Your task to perform on an android device: Search for "logitech g pro" on costco, select the first entry, add it to the cart, then select checkout. Image 0: 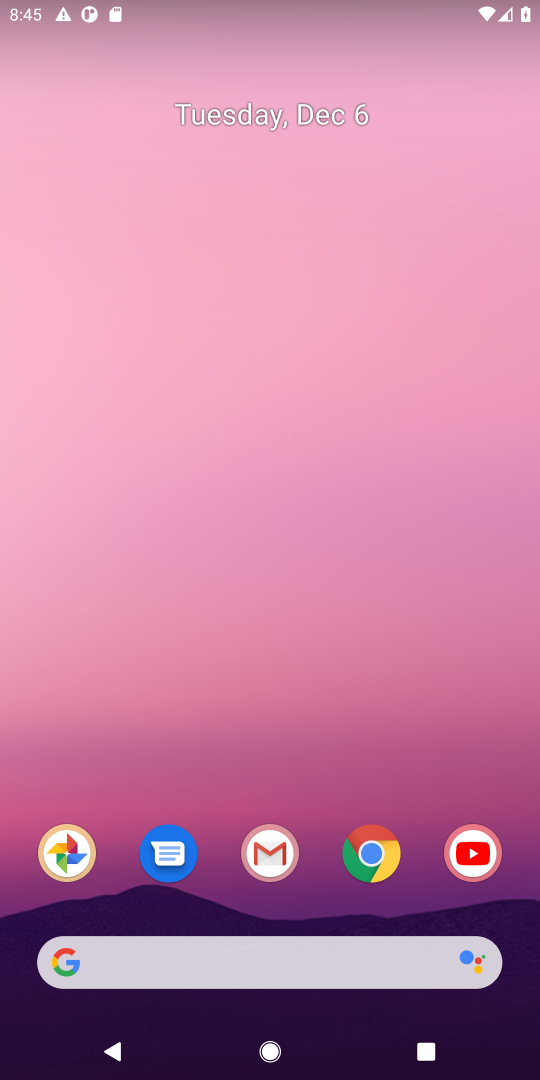
Step 0: drag from (323, 931) to (363, 268)
Your task to perform on an android device: Search for "logitech g pro" on costco, select the first entry, add it to the cart, then select checkout. Image 1: 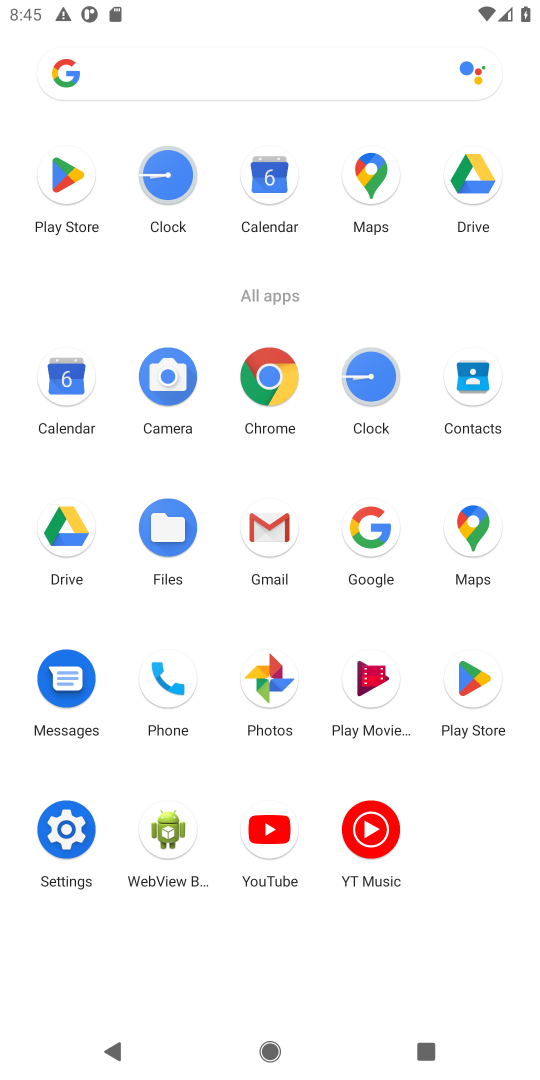
Step 1: click (360, 536)
Your task to perform on an android device: Search for "logitech g pro" on costco, select the first entry, add it to the cart, then select checkout. Image 2: 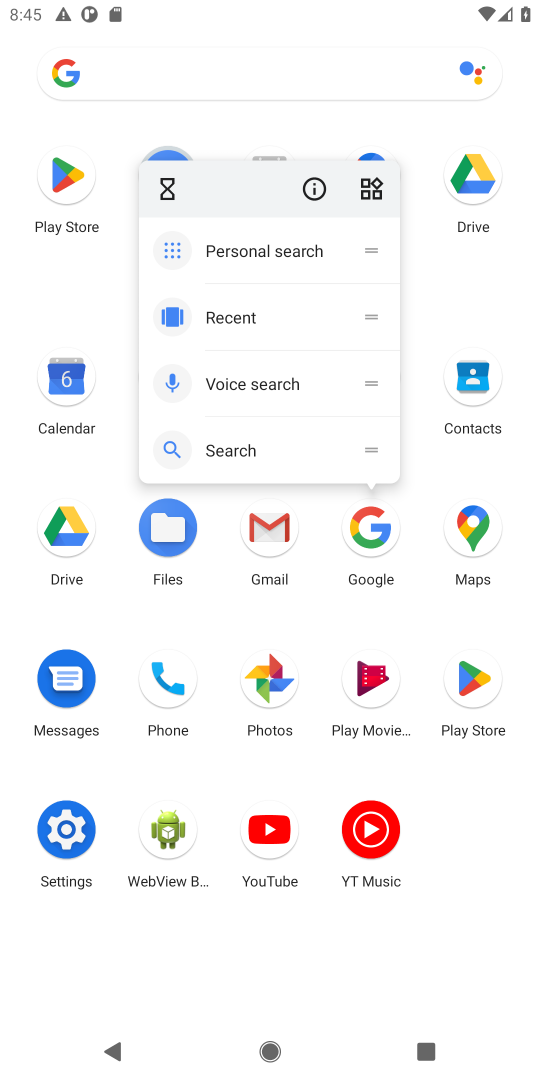
Step 2: click (383, 518)
Your task to perform on an android device: Search for "logitech g pro" on costco, select the first entry, add it to the cart, then select checkout. Image 3: 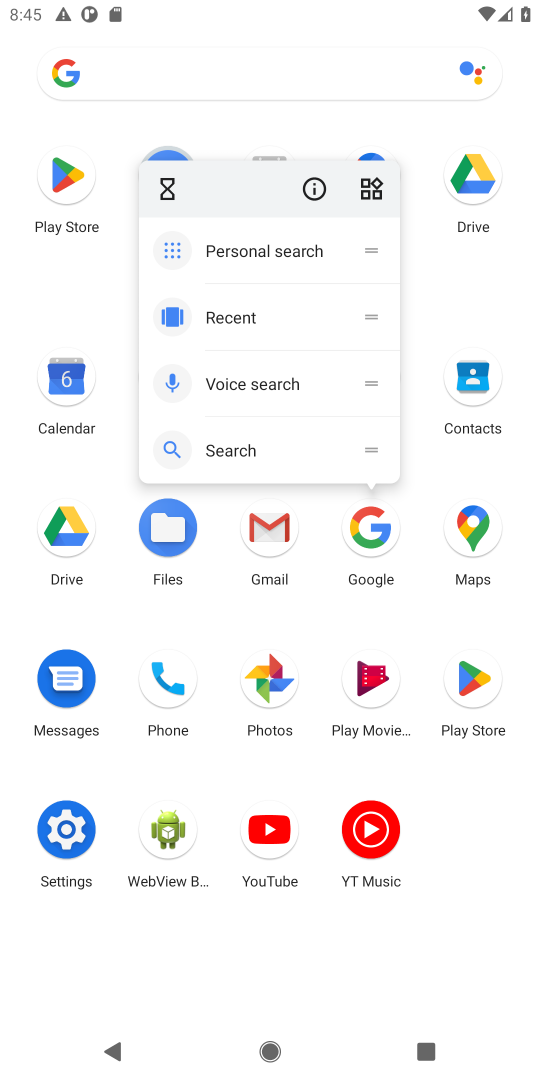
Step 3: click (373, 537)
Your task to perform on an android device: Search for "logitech g pro" on costco, select the first entry, add it to the cart, then select checkout. Image 4: 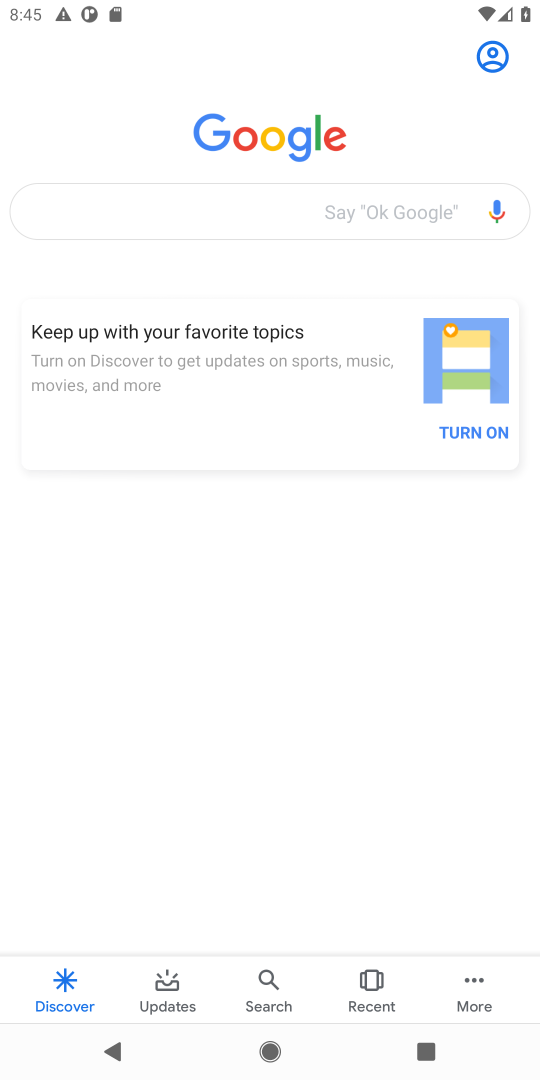
Step 4: click (181, 228)
Your task to perform on an android device: Search for "logitech g pro" on costco, select the first entry, add it to the cart, then select checkout. Image 5: 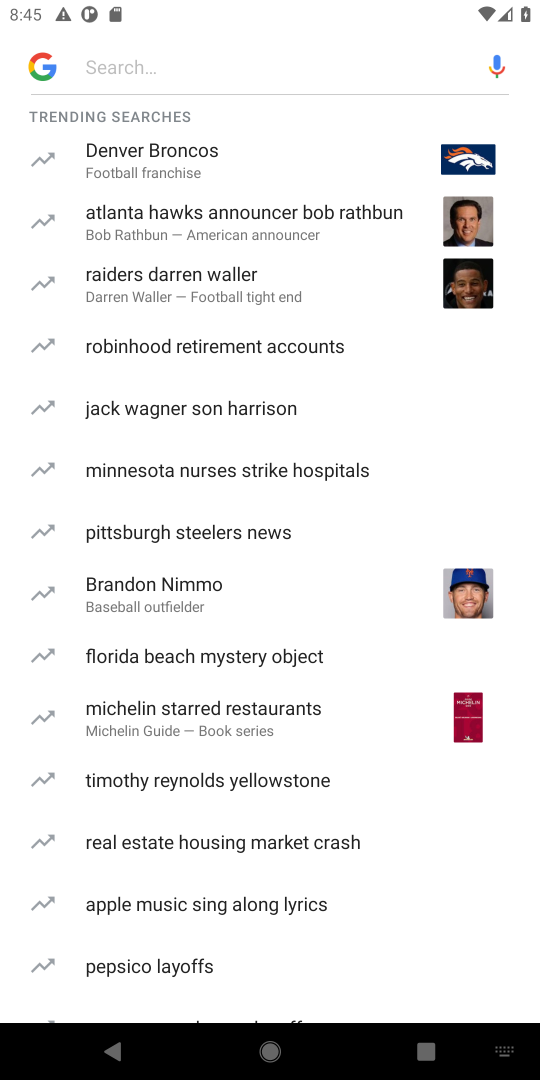
Step 5: type "costco"
Your task to perform on an android device: Search for "logitech g pro" on costco, select the first entry, add it to the cart, then select checkout. Image 6: 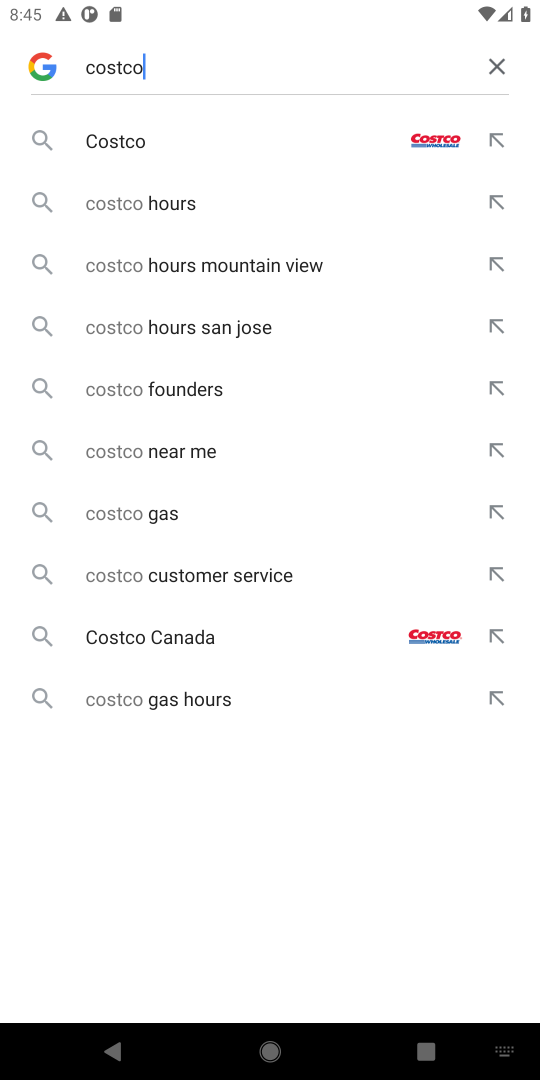
Step 6: click (431, 144)
Your task to perform on an android device: Search for "logitech g pro" on costco, select the first entry, add it to the cart, then select checkout. Image 7: 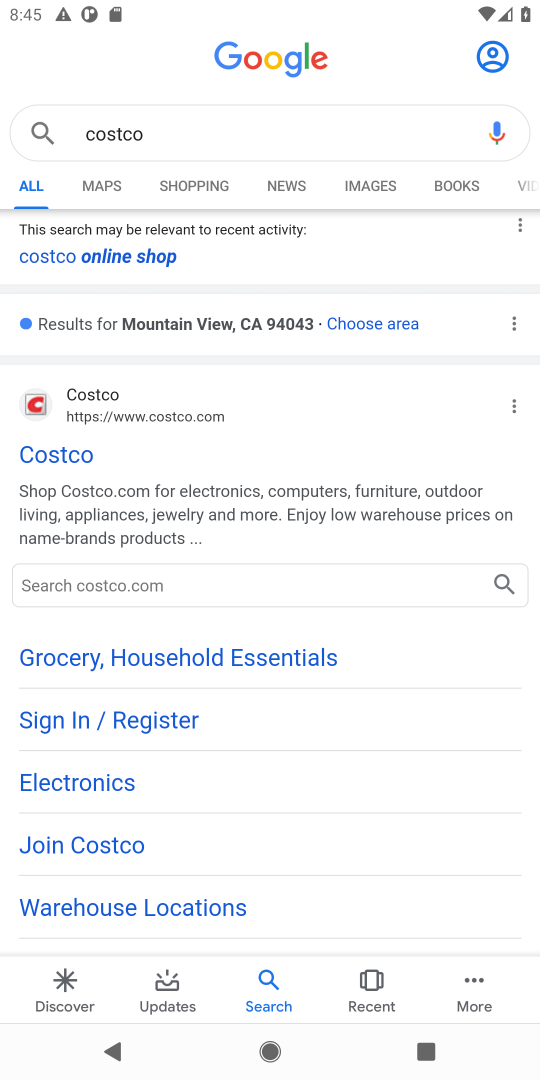
Step 7: click (93, 447)
Your task to perform on an android device: Search for "logitech g pro" on costco, select the first entry, add it to the cart, then select checkout. Image 8: 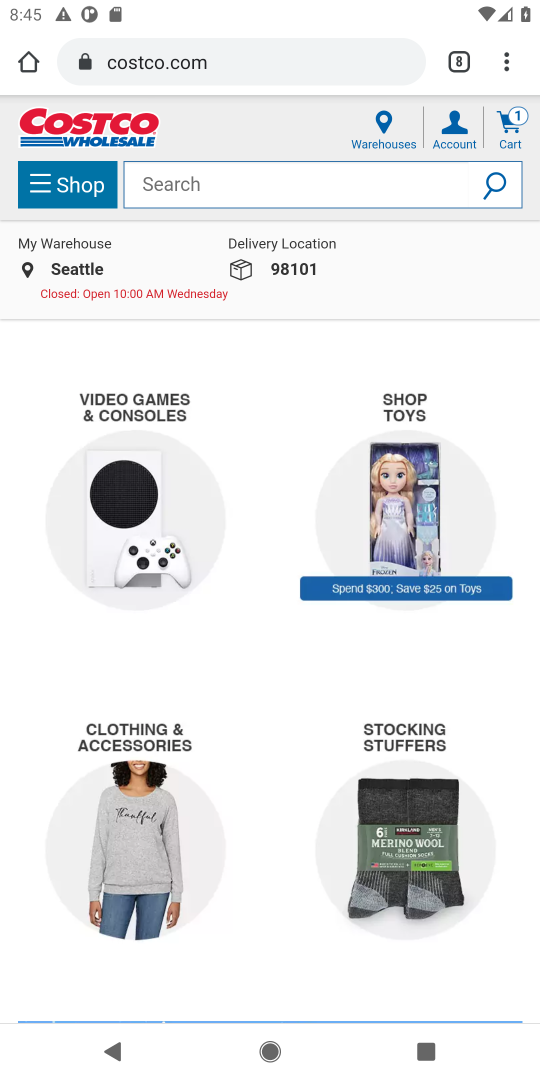
Step 8: click (182, 187)
Your task to perform on an android device: Search for "logitech g pro" on costco, select the first entry, add it to the cart, then select checkout. Image 9: 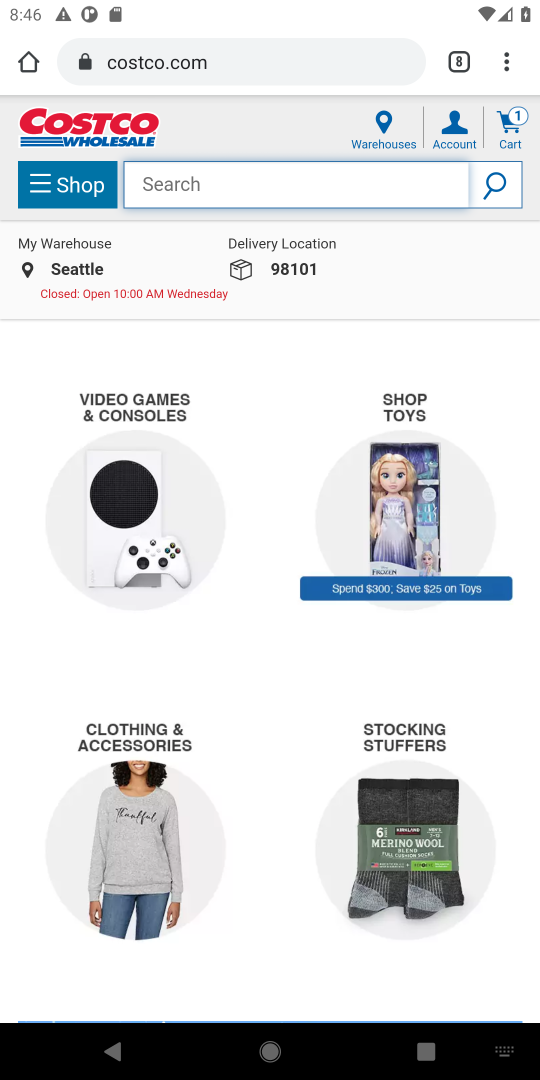
Step 9: type "logitech g pro"
Your task to perform on an android device: Search for "logitech g pro" on costco, select the first entry, add it to the cart, then select checkout. Image 10: 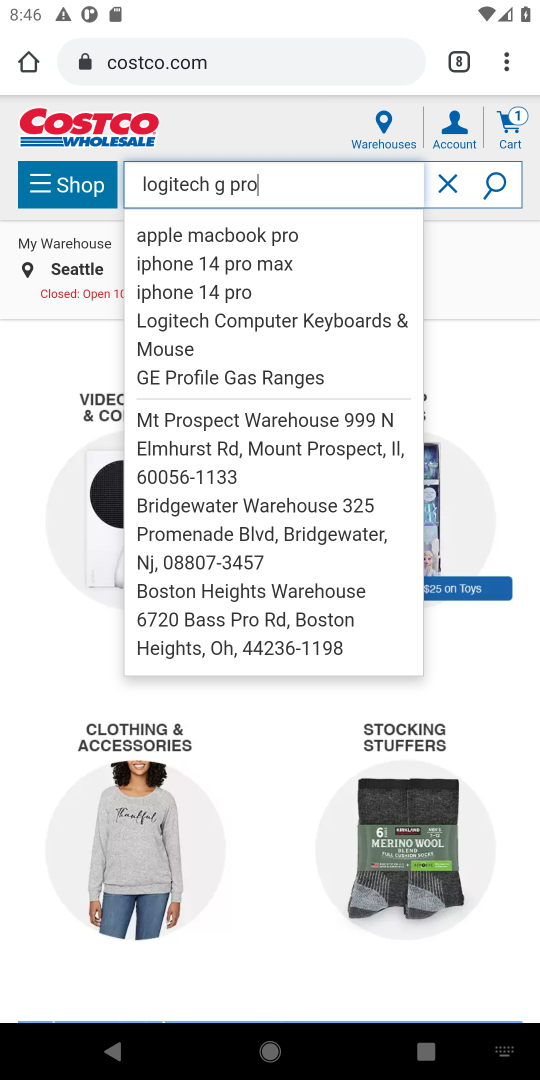
Step 10: click (484, 189)
Your task to perform on an android device: Search for "logitech g pro" on costco, select the first entry, add it to the cart, then select checkout. Image 11: 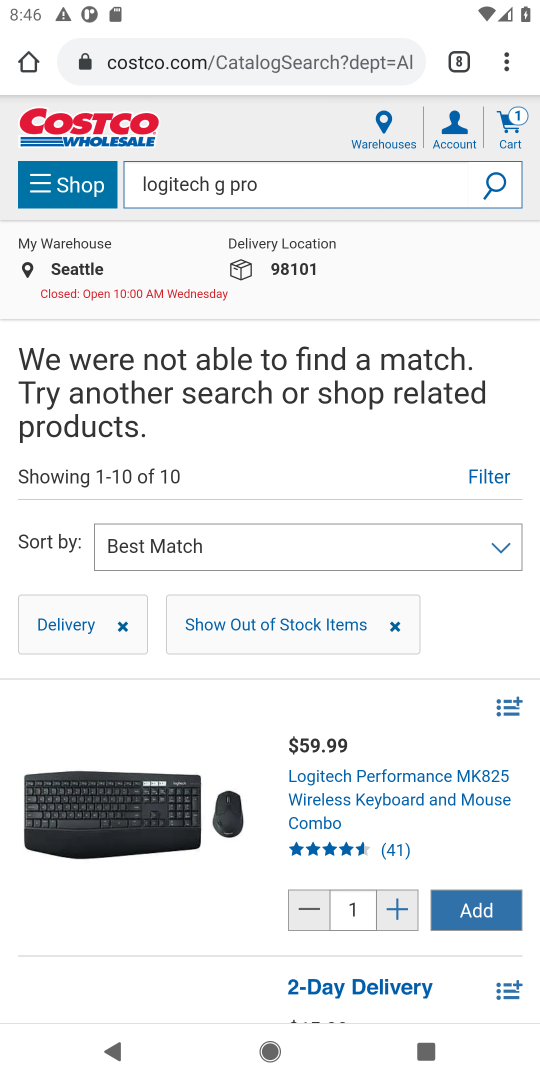
Step 11: click (481, 912)
Your task to perform on an android device: Search for "logitech g pro" on costco, select the first entry, add it to the cart, then select checkout. Image 12: 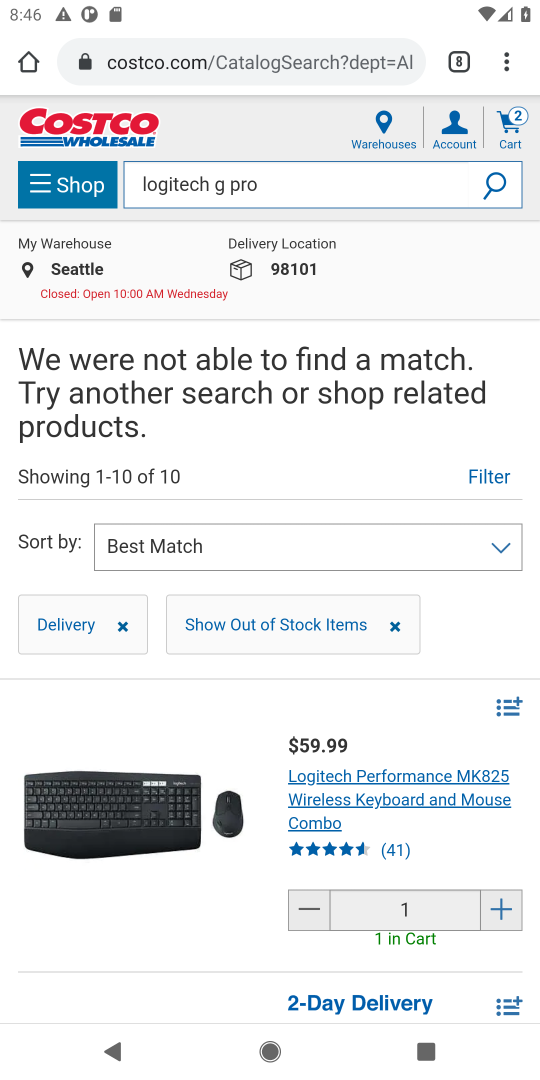
Step 12: click (505, 118)
Your task to perform on an android device: Search for "logitech g pro" on costco, select the first entry, add it to the cart, then select checkout. Image 13: 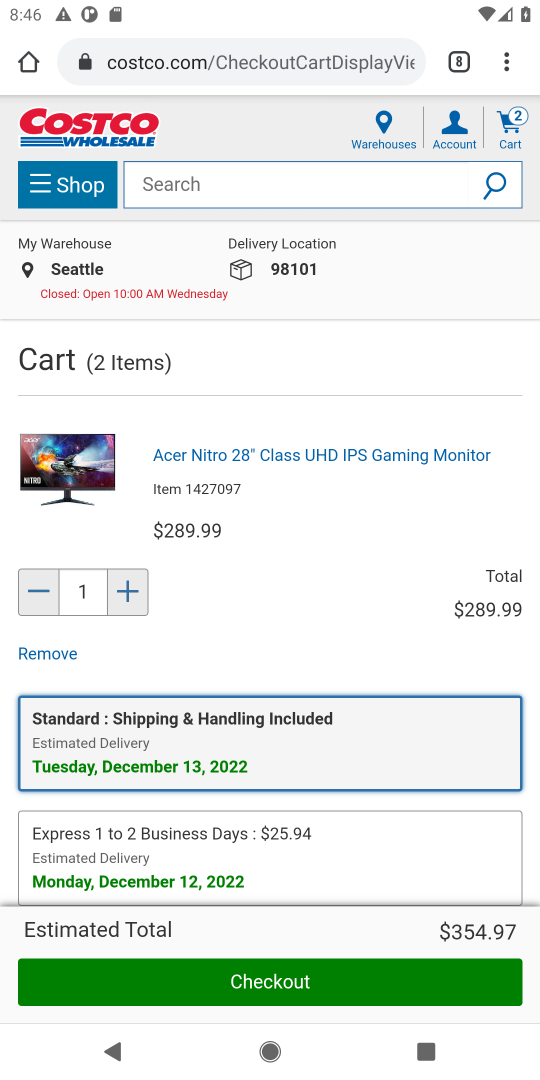
Step 13: click (234, 990)
Your task to perform on an android device: Search for "logitech g pro" on costco, select the first entry, add it to the cart, then select checkout. Image 14: 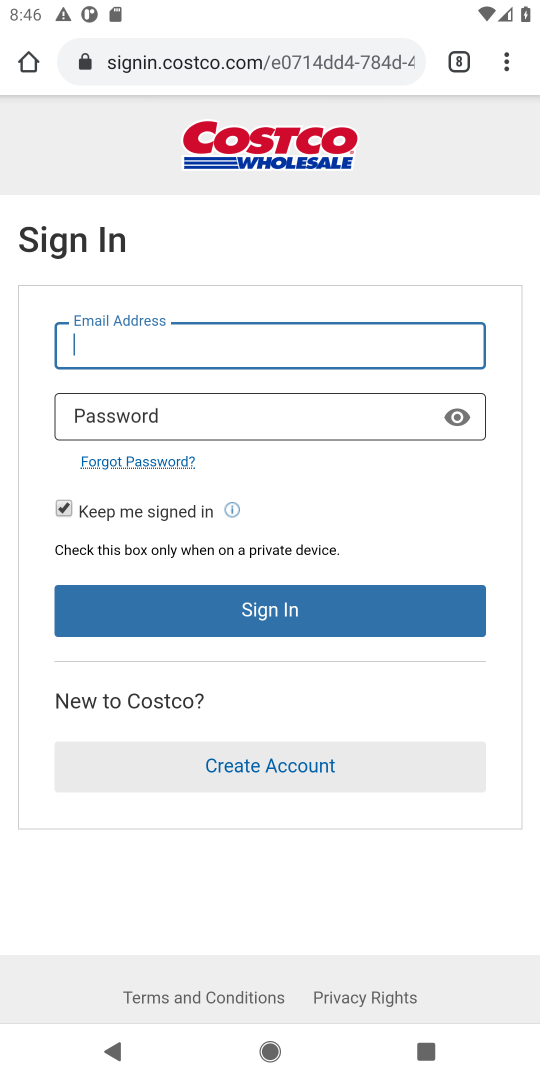
Step 14: task complete